Your task to perform on an android device: Search for Italian restaurants on Maps Image 0: 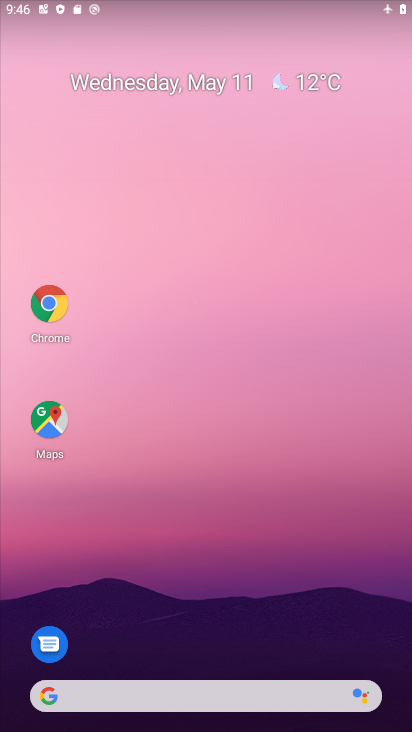
Step 0: click (55, 431)
Your task to perform on an android device: Search for Italian restaurants on Maps Image 1: 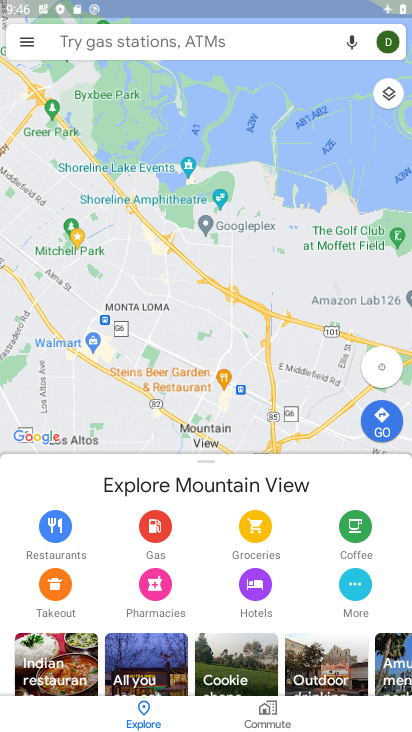
Step 1: click (179, 37)
Your task to perform on an android device: Search for Italian restaurants on Maps Image 2: 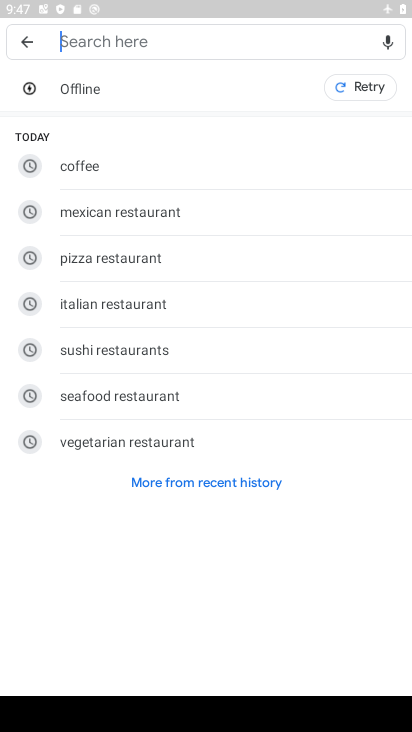
Step 2: click (93, 305)
Your task to perform on an android device: Search for Italian restaurants on Maps Image 3: 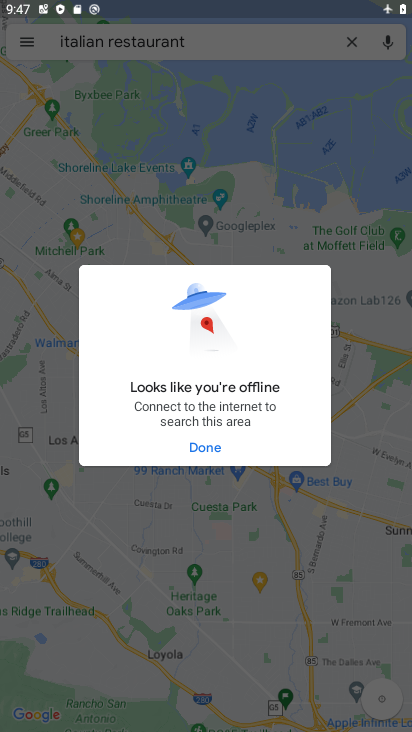
Step 3: click (212, 446)
Your task to perform on an android device: Search for Italian restaurants on Maps Image 4: 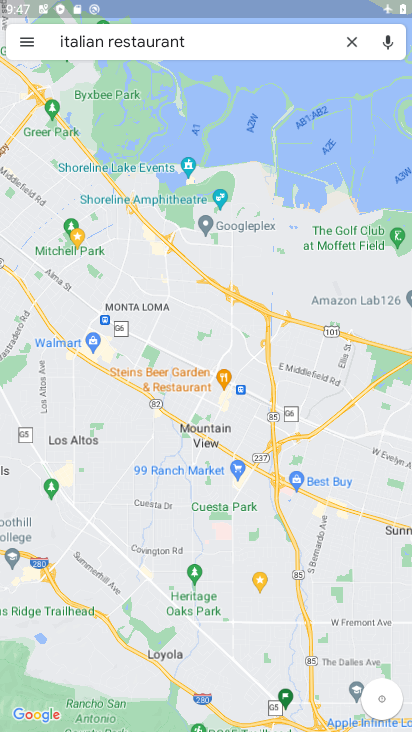
Step 4: task complete